Your task to perform on an android device: Open Yahoo.com Image 0: 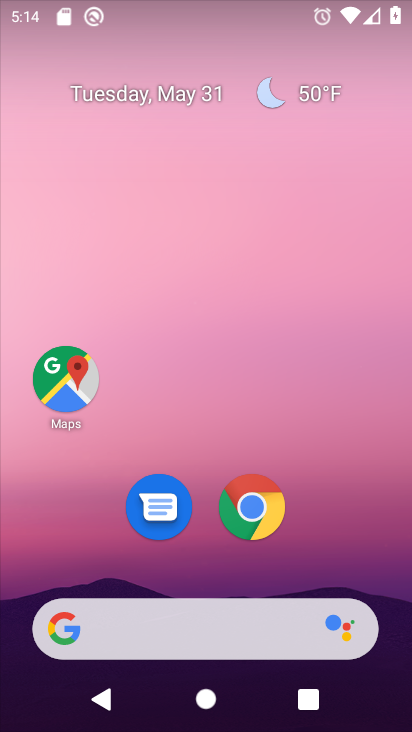
Step 0: click (252, 628)
Your task to perform on an android device: Open Yahoo.com Image 1: 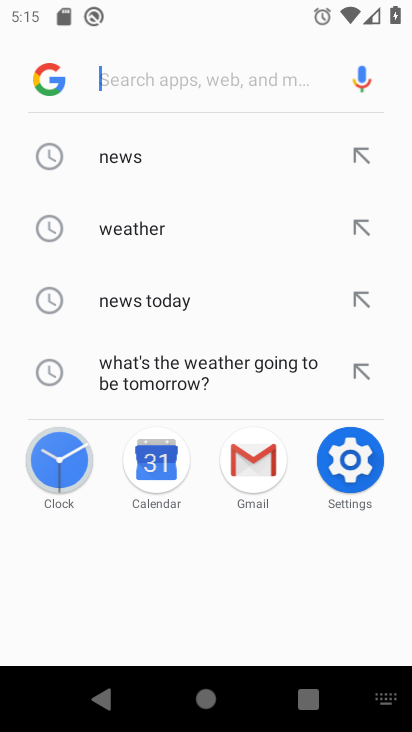
Step 1: type "yahoo.com"
Your task to perform on an android device: Open Yahoo.com Image 2: 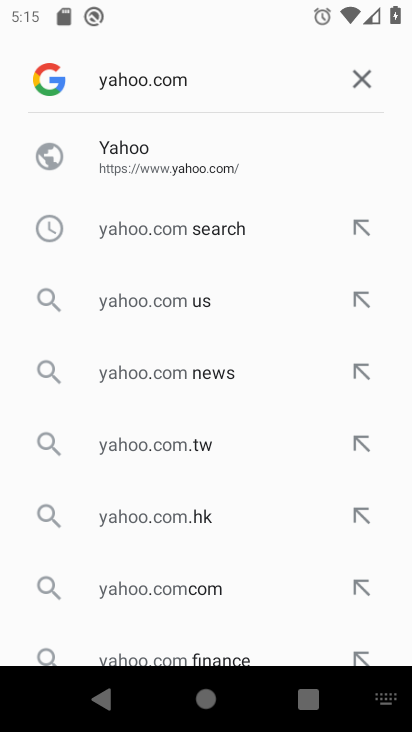
Step 2: click (138, 165)
Your task to perform on an android device: Open Yahoo.com Image 3: 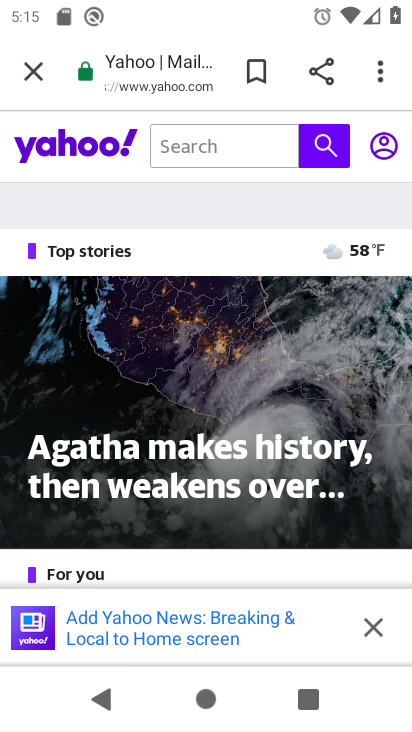
Step 3: task complete